Your task to perform on an android device: open the mobile data screen to see how much data has been used Image 0: 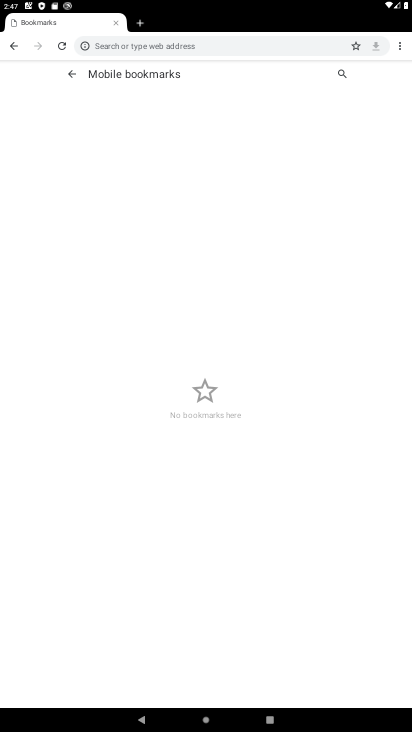
Step 0: press home button
Your task to perform on an android device: open the mobile data screen to see how much data has been used Image 1: 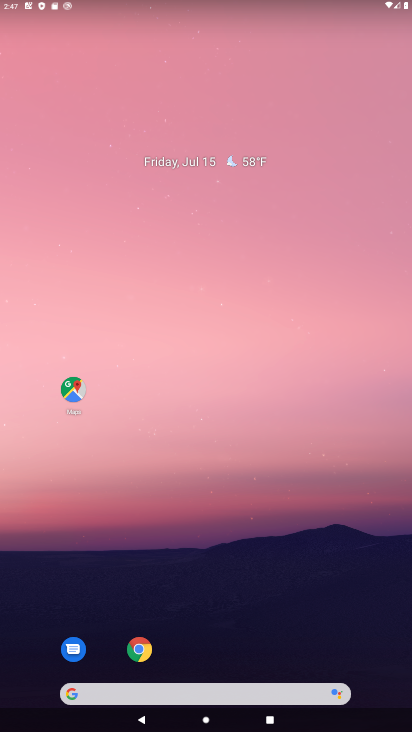
Step 1: drag from (237, 726) to (200, 8)
Your task to perform on an android device: open the mobile data screen to see how much data has been used Image 2: 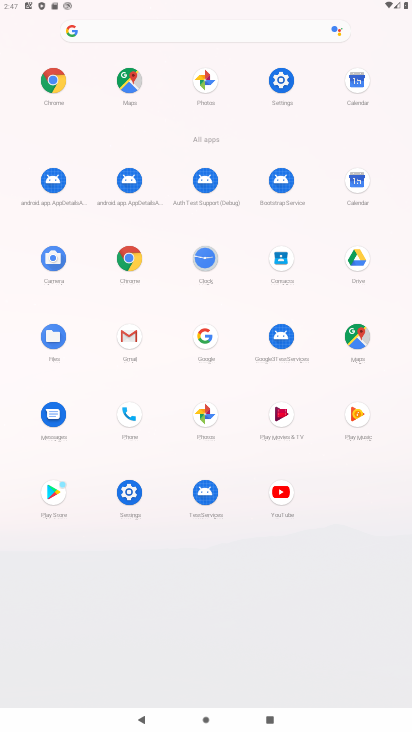
Step 2: click (282, 79)
Your task to perform on an android device: open the mobile data screen to see how much data has been used Image 3: 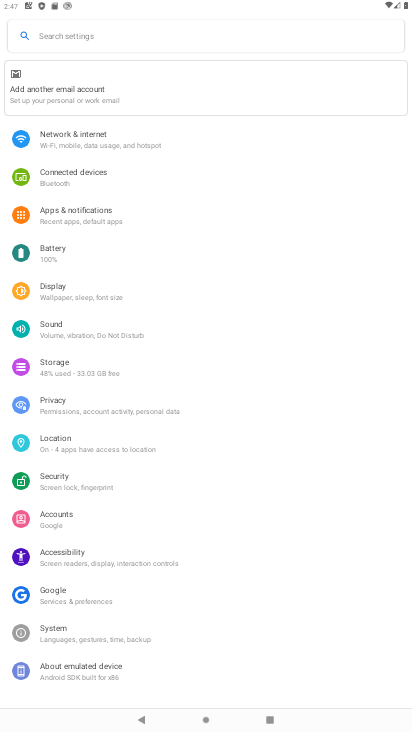
Step 3: click (85, 133)
Your task to perform on an android device: open the mobile data screen to see how much data has been used Image 4: 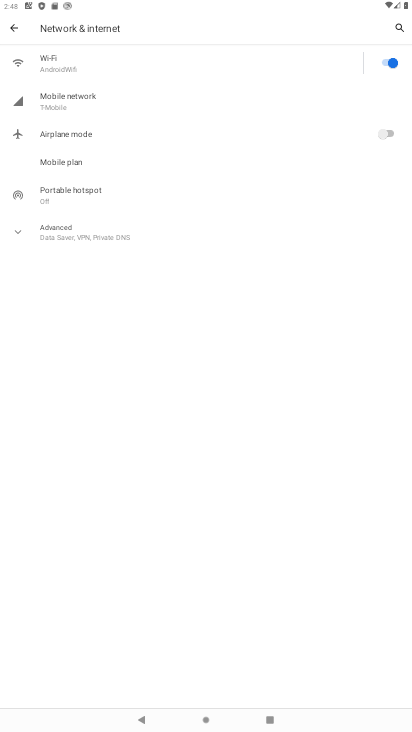
Step 4: click (73, 100)
Your task to perform on an android device: open the mobile data screen to see how much data has been used Image 5: 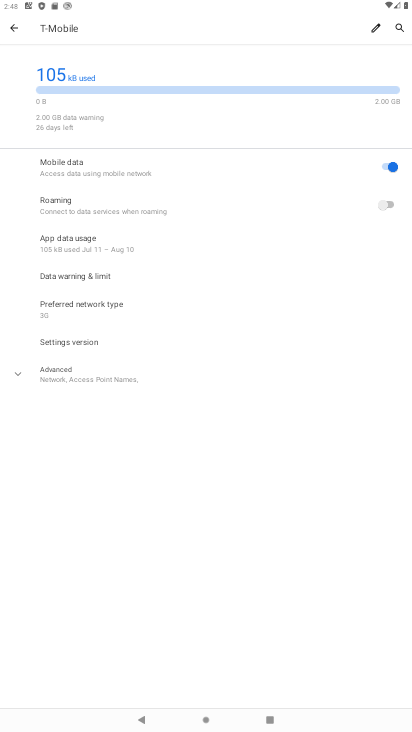
Step 5: click (85, 234)
Your task to perform on an android device: open the mobile data screen to see how much data has been used Image 6: 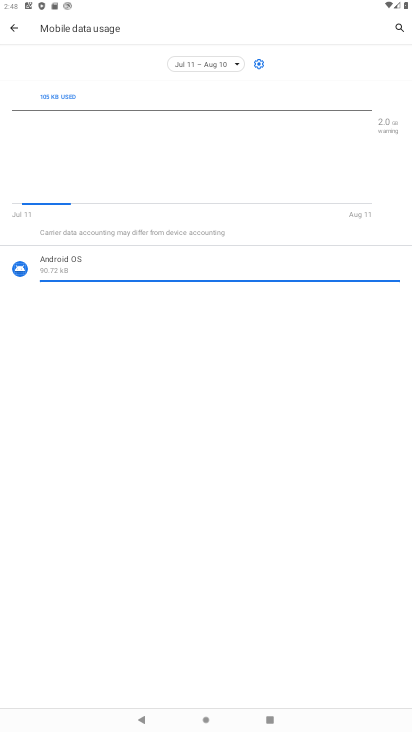
Step 6: task complete